Your task to perform on an android device: turn off improve location accuracy Image 0: 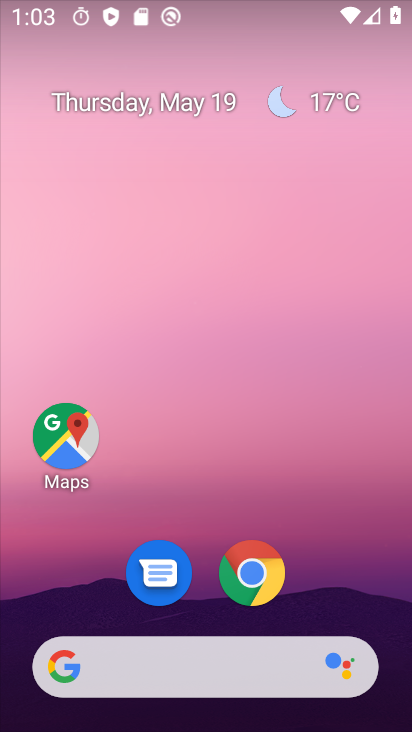
Step 0: drag from (197, 617) to (245, 69)
Your task to perform on an android device: turn off improve location accuracy Image 1: 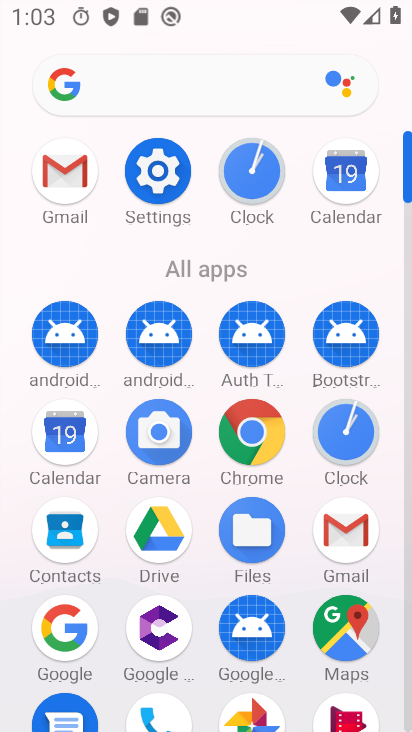
Step 1: click (168, 167)
Your task to perform on an android device: turn off improve location accuracy Image 2: 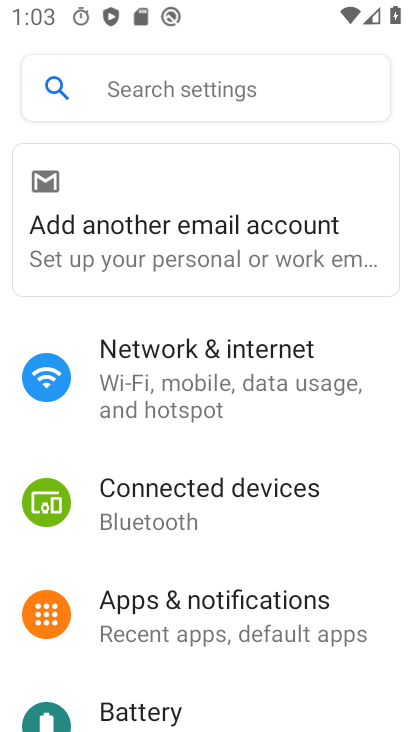
Step 2: drag from (189, 638) to (296, 78)
Your task to perform on an android device: turn off improve location accuracy Image 3: 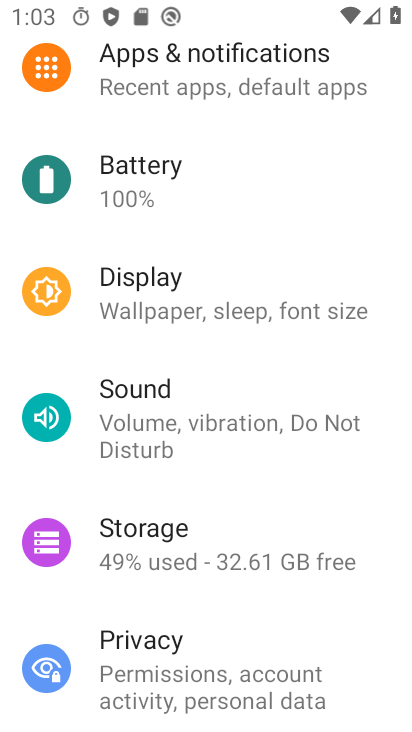
Step 3: drag from (210, 621) to (279, 123)
Your task to perform on an android device: turn off improve location accuracy Image 4: 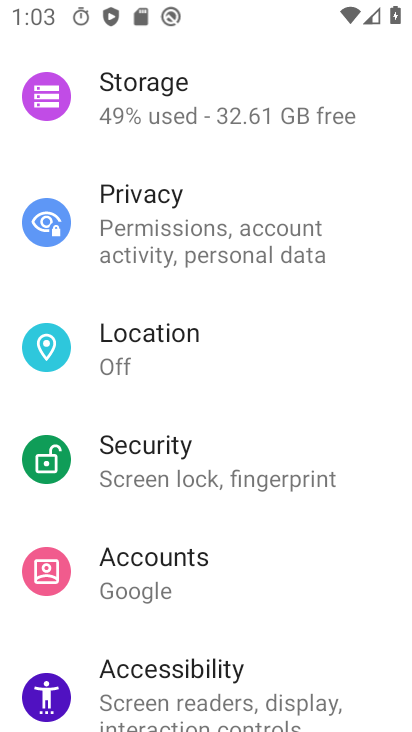
Step 4: click (164, 349)
Your task to perform on an android device: turn off improve location accuracy Image 5: 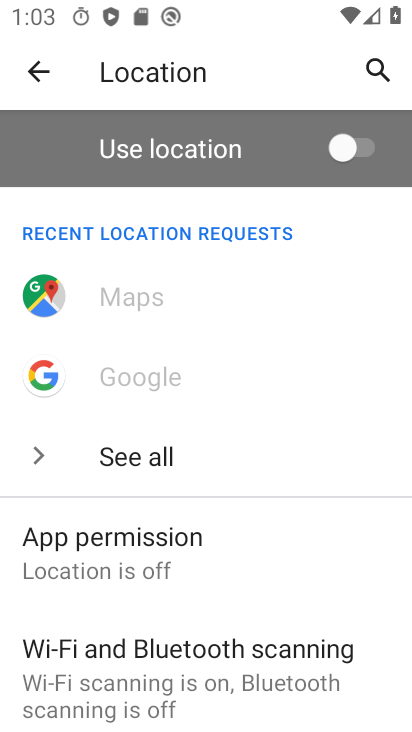
Step 5: drag from (157, 633) to (278, 148)
Your task to perform on an android device: turn off improve location accuracy Image 6: 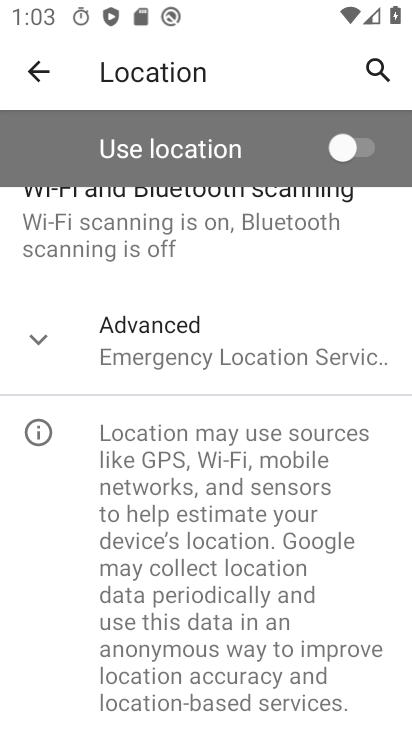
Step 6: click (206, 340)
Your task to perform on an android device: turn off improve location accuracy Image 7: 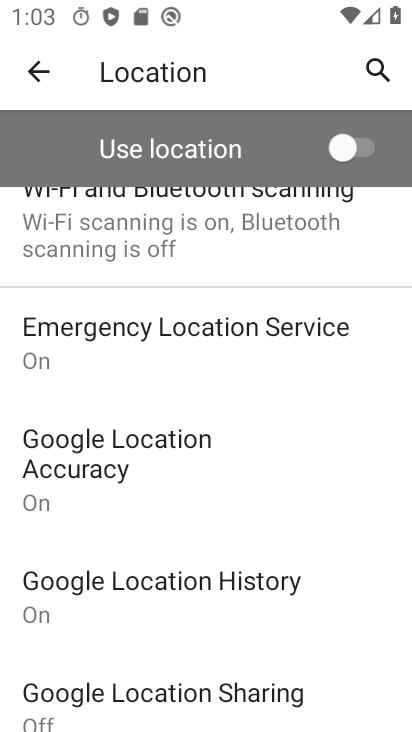
Step 7: click (126, 466)
Your task to perform on an android device: turn off improve location accuracy Image 8: 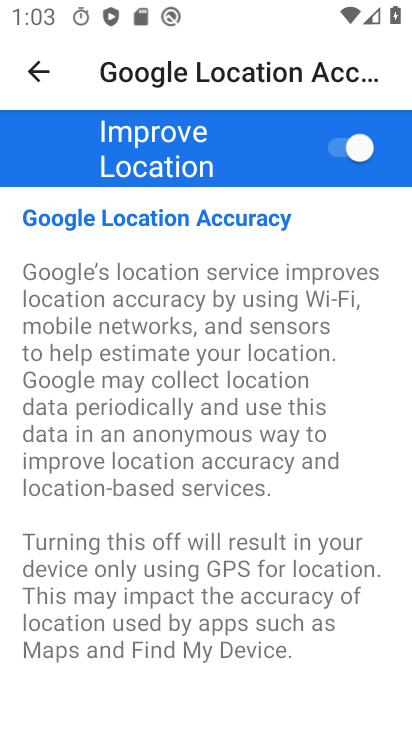
Step 8: click (349, 137)
Your task to perform on an android device: turn off improve location accuracy Image 9: 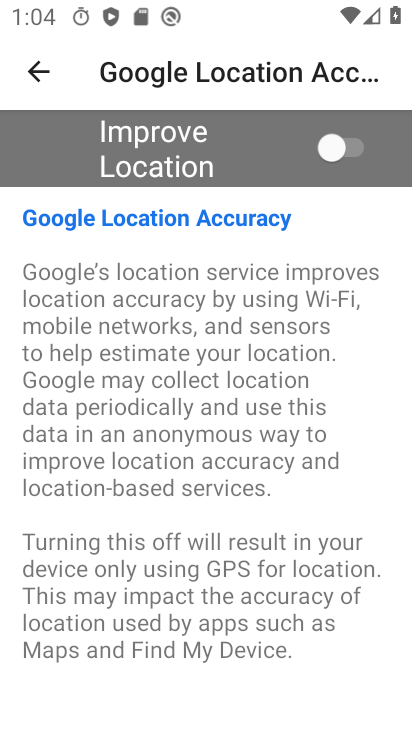
Step 9: task complete